Your task to perform on an android device: manage bookmarks in the chrome app Image 0: 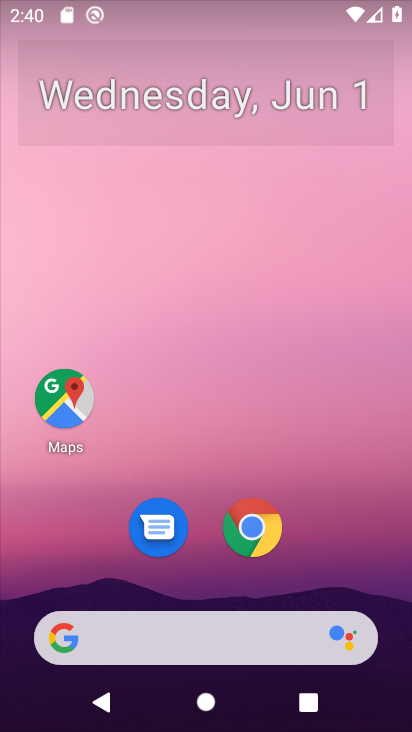
Step 0: drag from (209, 580) to (216, 132)
Your task to perform on an android device: manage bookmarks in the chrome app Image 1: 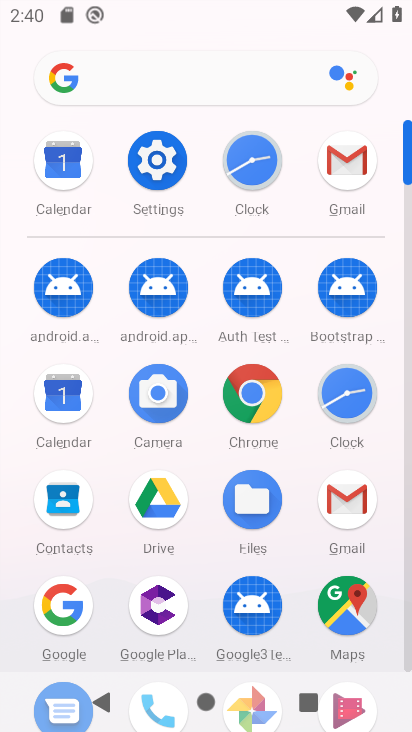
Step 1: click (238, 405)
Your task to perform on an android device: manage bookmarks in the chrome app Image 2: 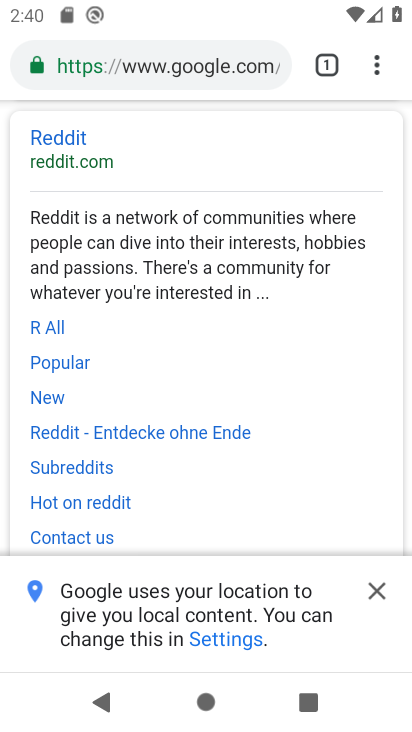
Step 2: click (372, 71)
Your task to perform on an android device: manage bookmarks in the chrome app Image 3: 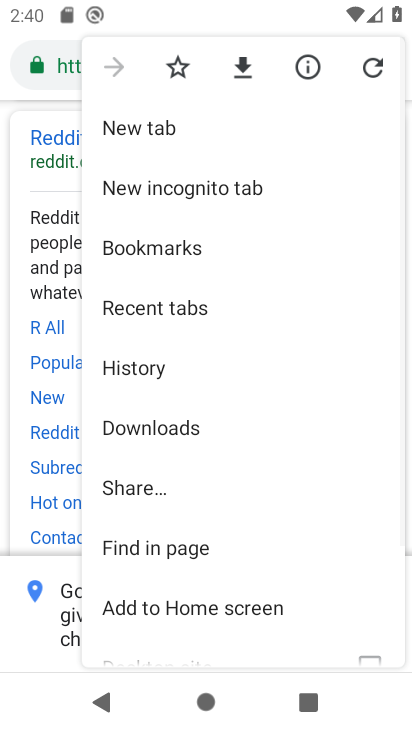
Step 3: drag from (181, 617) to (241, 230)
Your task to perform on an android device: manage bookmarks in the chrome app Image 4: 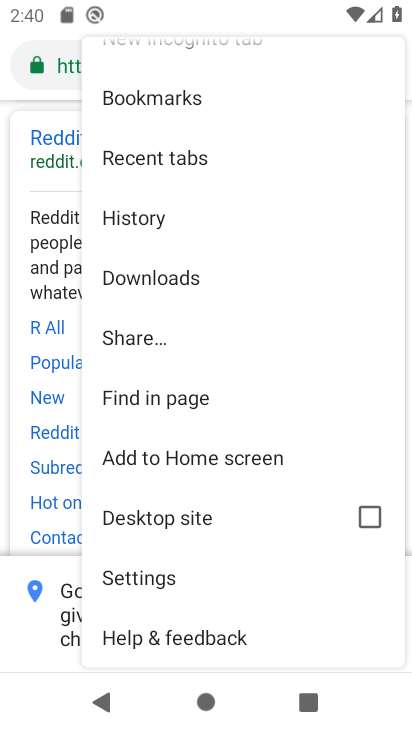
Step 4: click (167, 583)
Your task to perform on an android device: manage bookmarks in the chrome app Image 5: 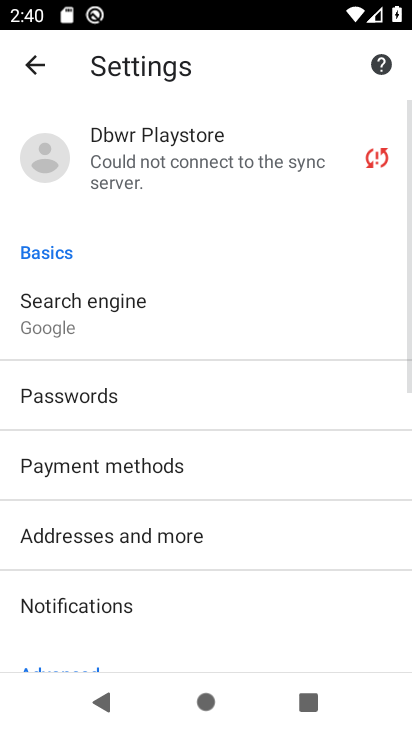
Step 5: click (36, 67)
Your task to perform on an android device: manage bookmarks in the chrome app Image 6: 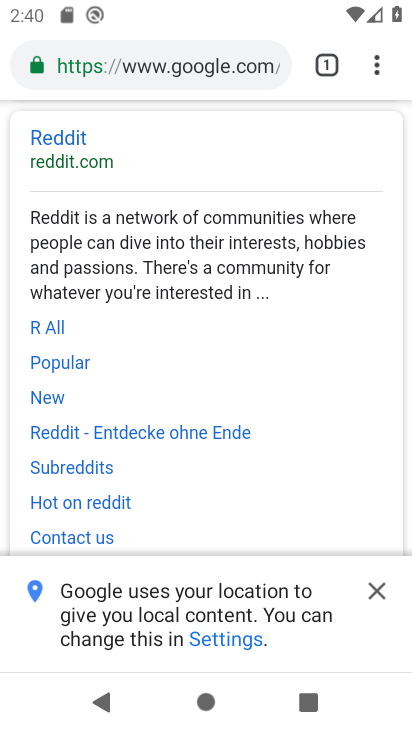
Step 6: click (380, 65)
Your task to perform on an android device: manage bookmarks in the chrome app Image 7: 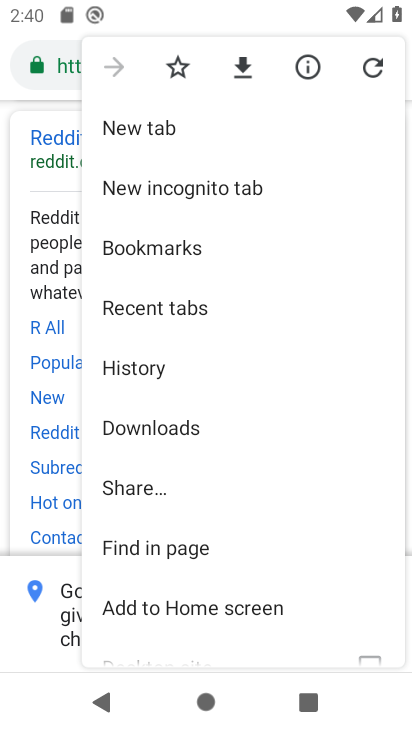
Step 7: click (165, 248)
Your task to perform on an android device: manage bookmarks in the chrome app Image 8: 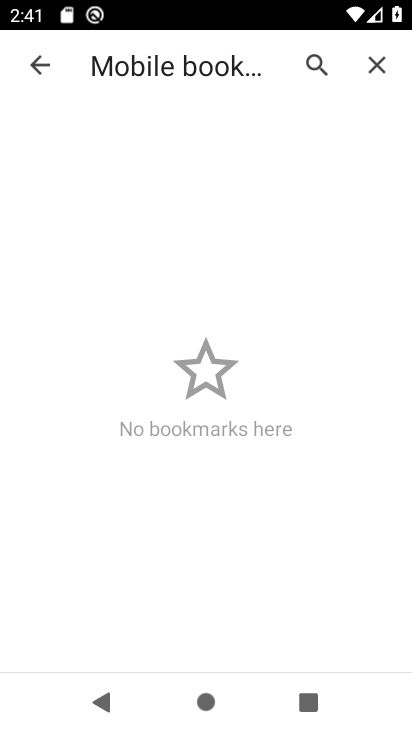
Step 8: task complete